Your task to perform on an android device: install app "Clock" Image 0: 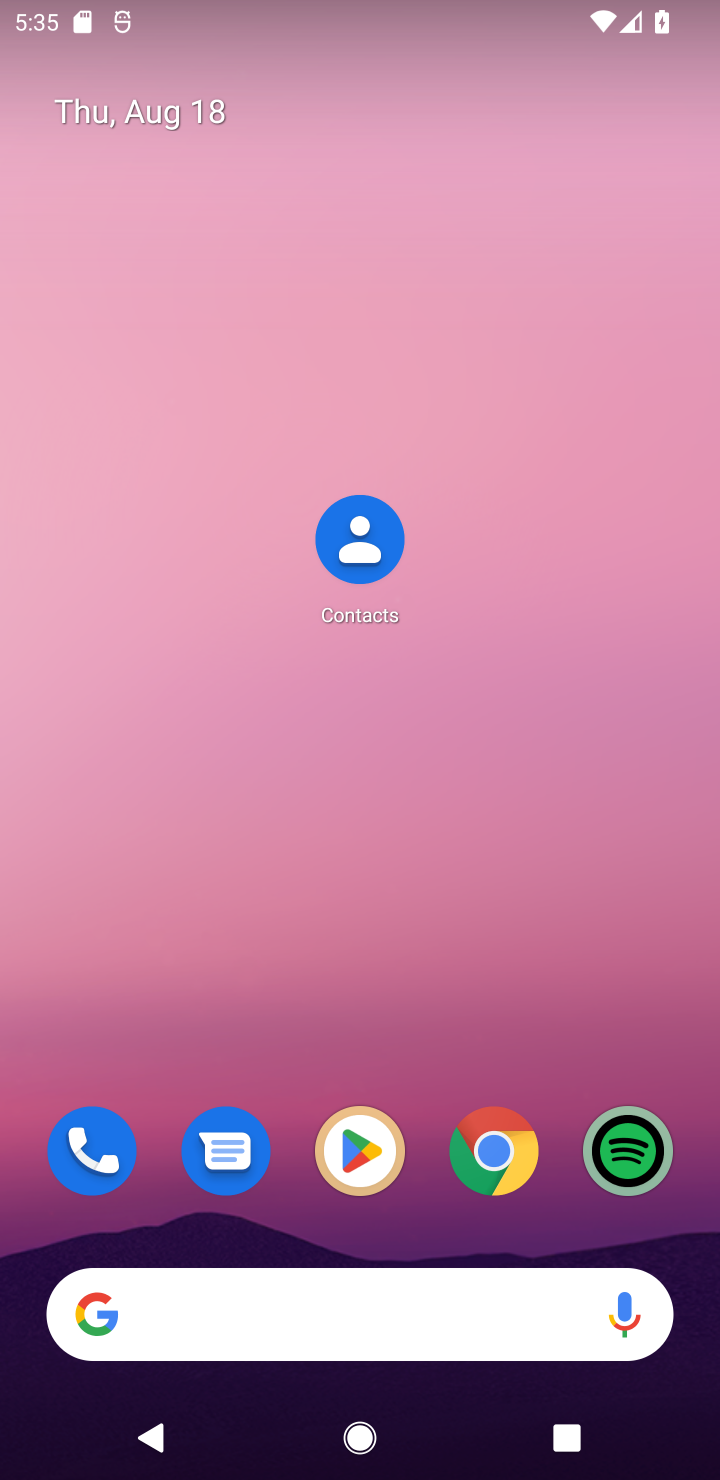
Step 0: drag from (431, 1257) to (553, 106)
Your task to perform on an android device: install app "Clock" Image 1: 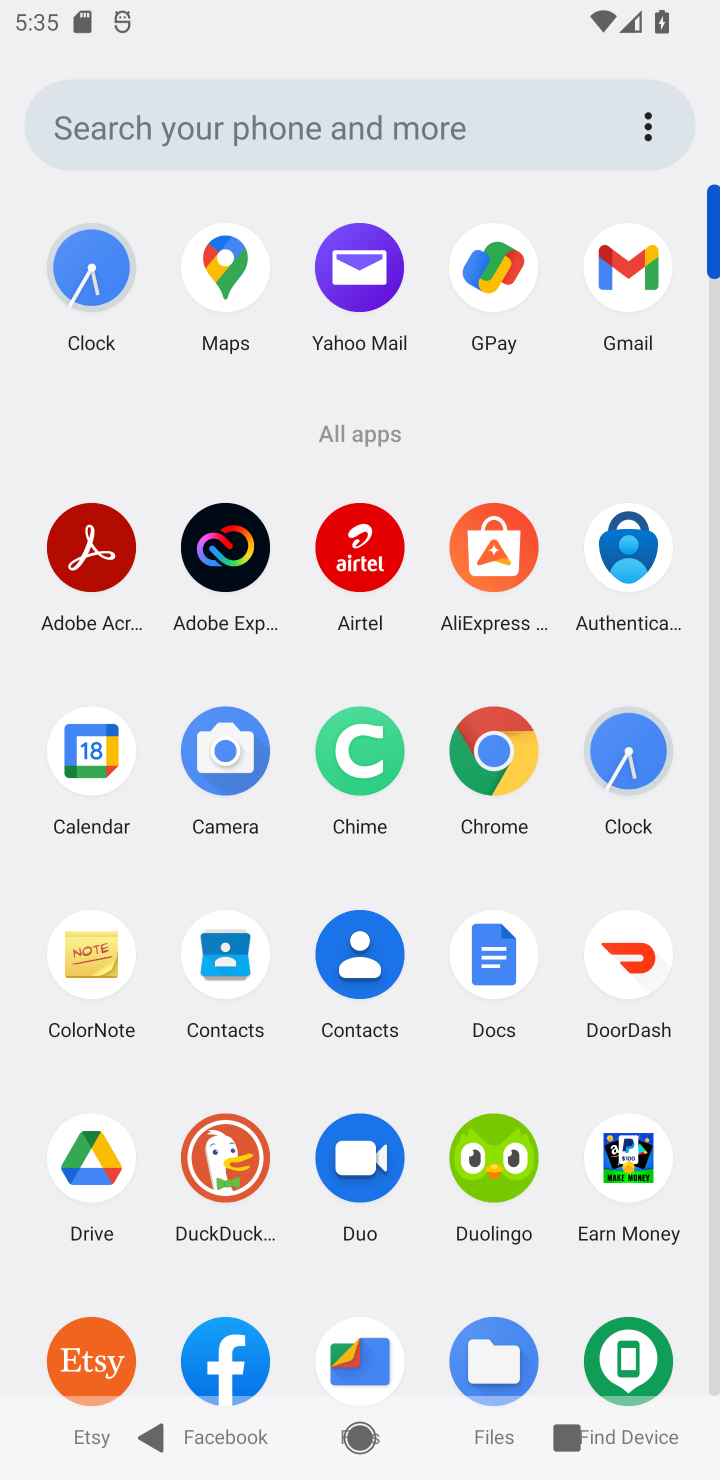
Step 1: click (56, 282)
Your task to perform on an android device: install app "Clock" Image 2: 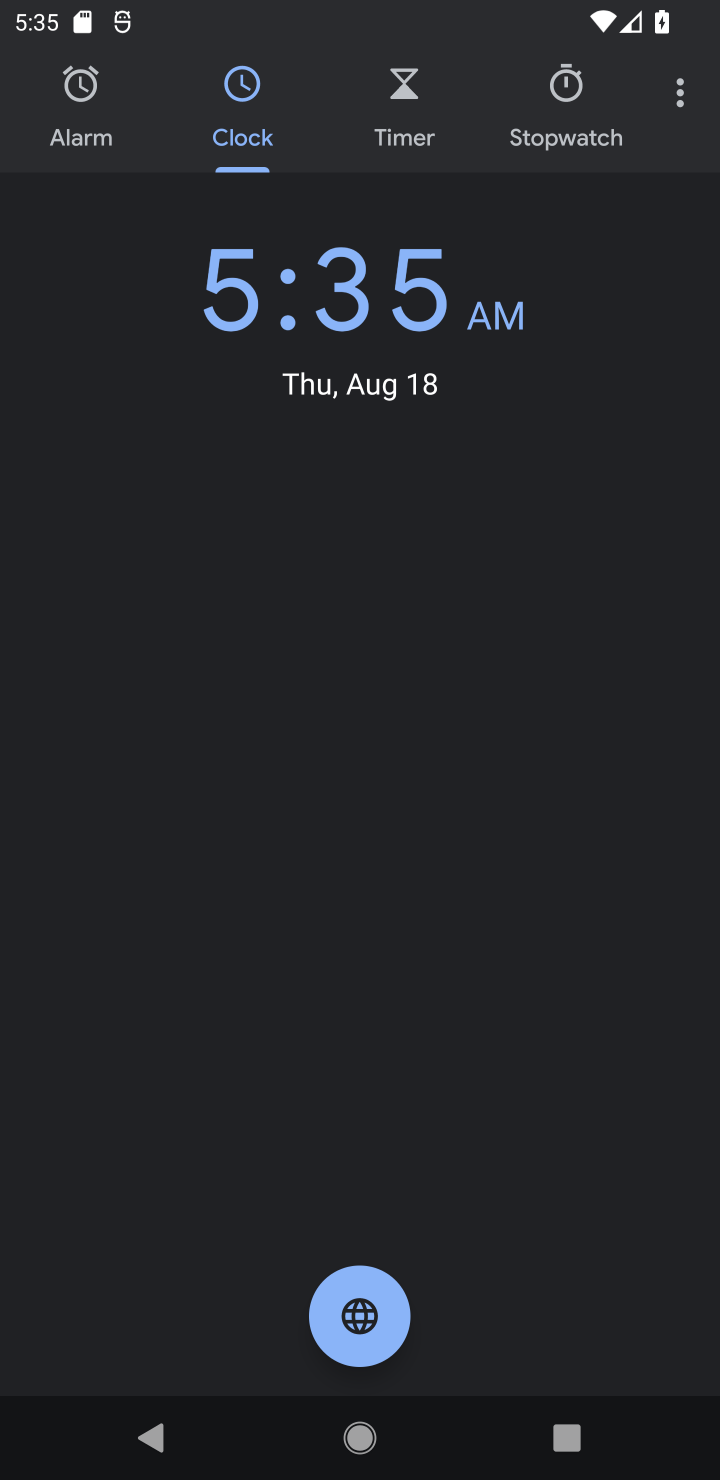
Step 2: task complete